Your task to perform on an android device: Empty the shopping cart on bestbuy.com. Search for alienware area 51 on bestbuy.com, select the first entry, and add it to the cart. Image 0: 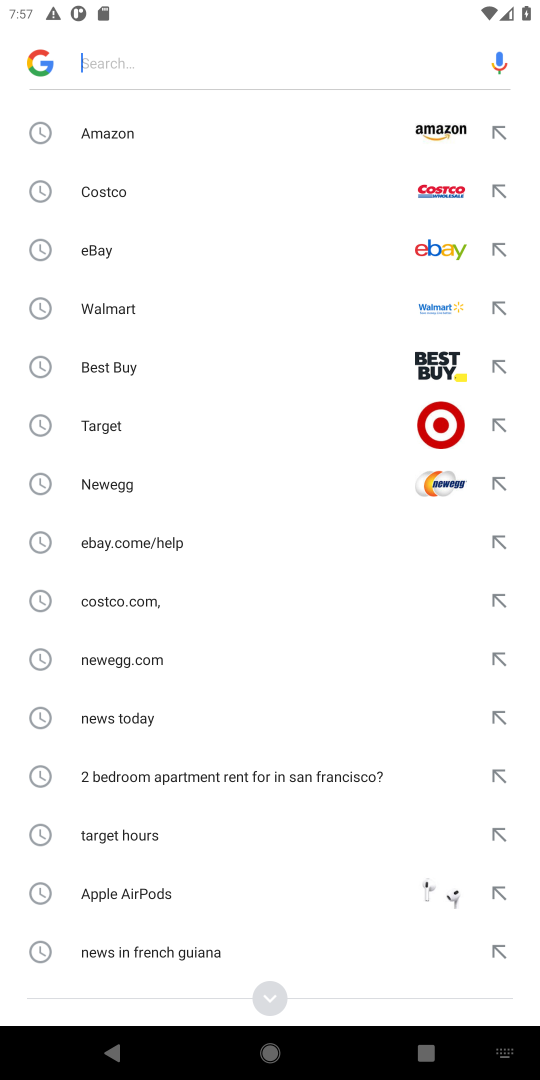
Step 0: click (119, 73)
Your task to perform on an android device: Empty the shopping cart on bestbuy.com. Search for alienware area 51 on bestbuy.com, select the first entry, and add it to the cart. Image 1: 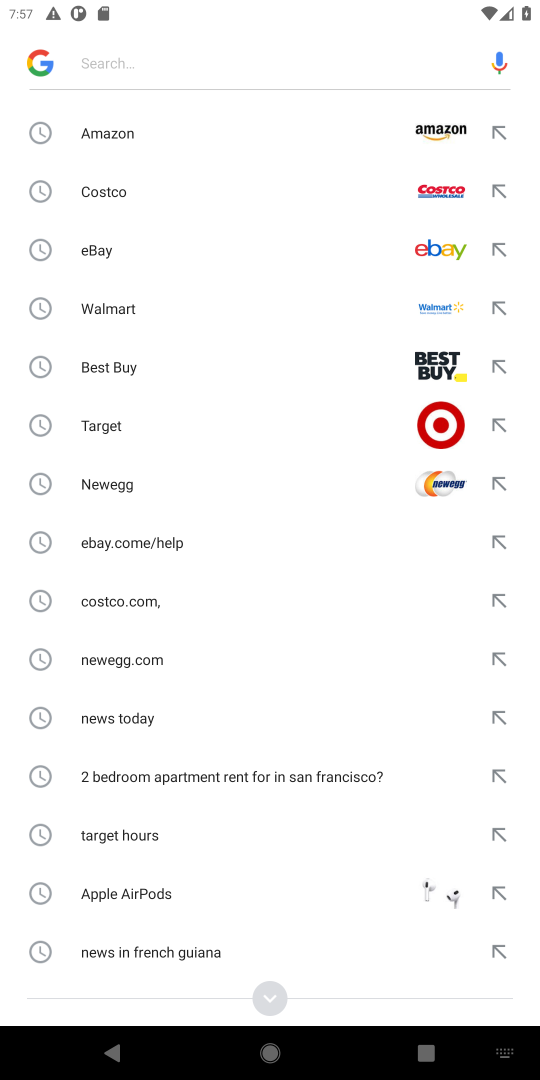
Step 1: type "bestbuy.com"
Your task to perform on an android device: Empty the shopping cart on bestbuy.com. Search for alienware area 51 on bestbuy.com, select the first entry, and add it to the cart. Image 2: 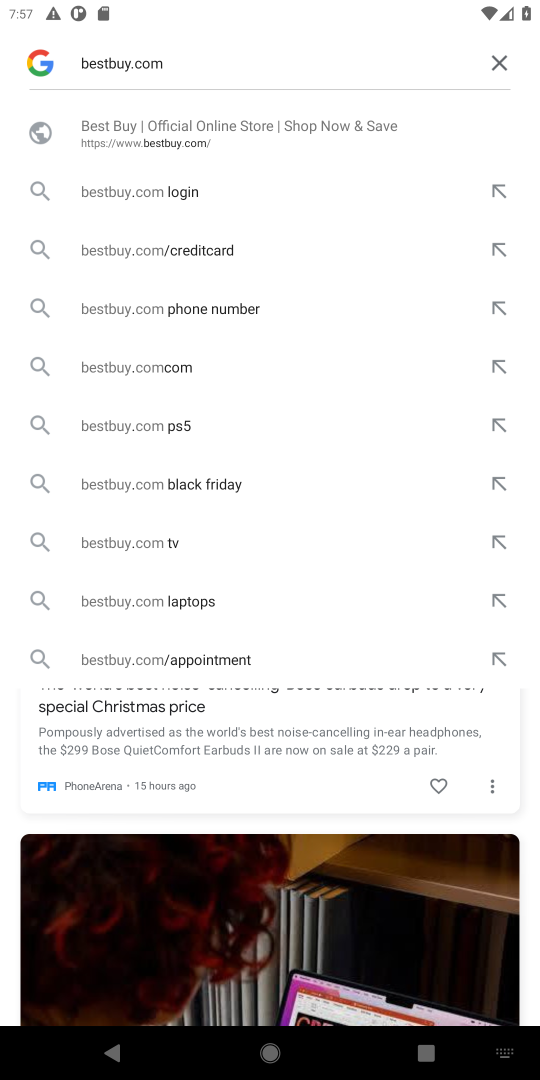
Step 2: click (113, 137)
Your task to perform on an android device: Empty the shopping cart on bestbuy.com. Search for alienware area 51 on bestbuy.com, select the first entry, and add it to the cart. Image 3: 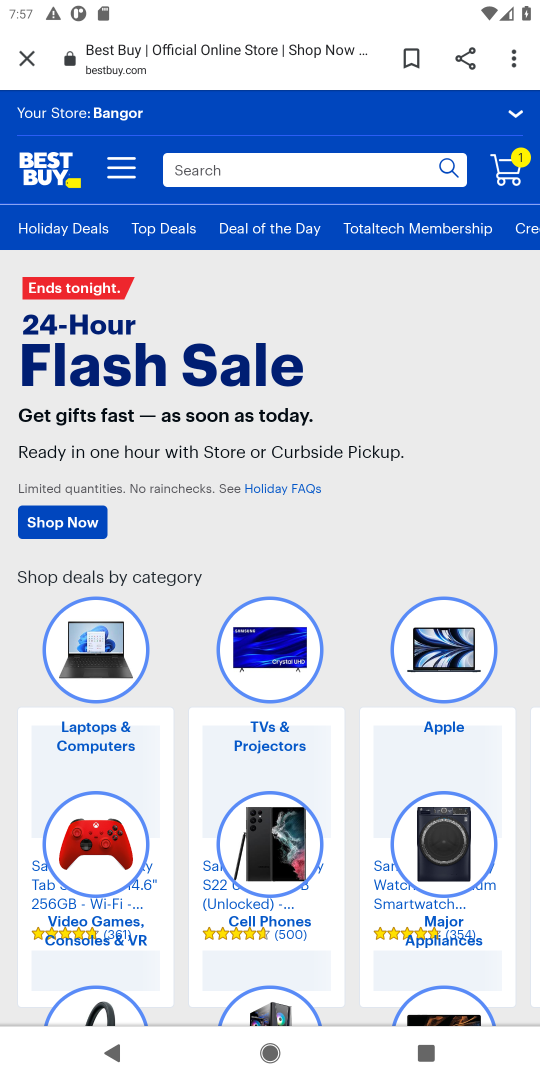
Step 3: click (511, 178)
Your task to perform on an android device: Empty the shopping cart on bestbuy.com. Search for alienware area 51 on bestbuy.com, select the first entry, and add it to the cart. Image 4: 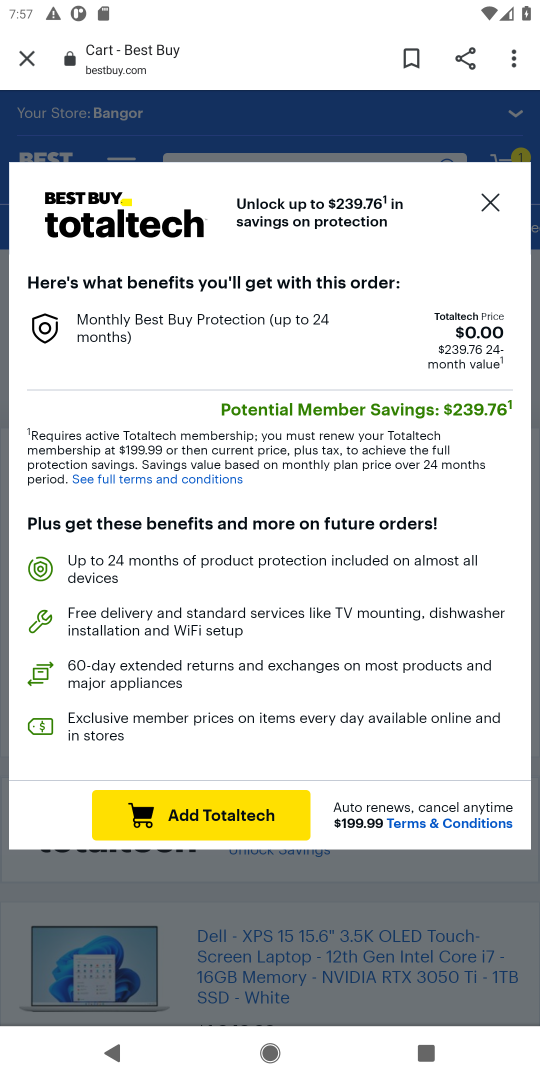
Step 4: click (495, 201)
Your task to perform on an android device: Empty the shopping cart on bestbuy.com. Search for alienware area 51 on bestbuy.com, select the first entry, and add it to the cart. Image 5: 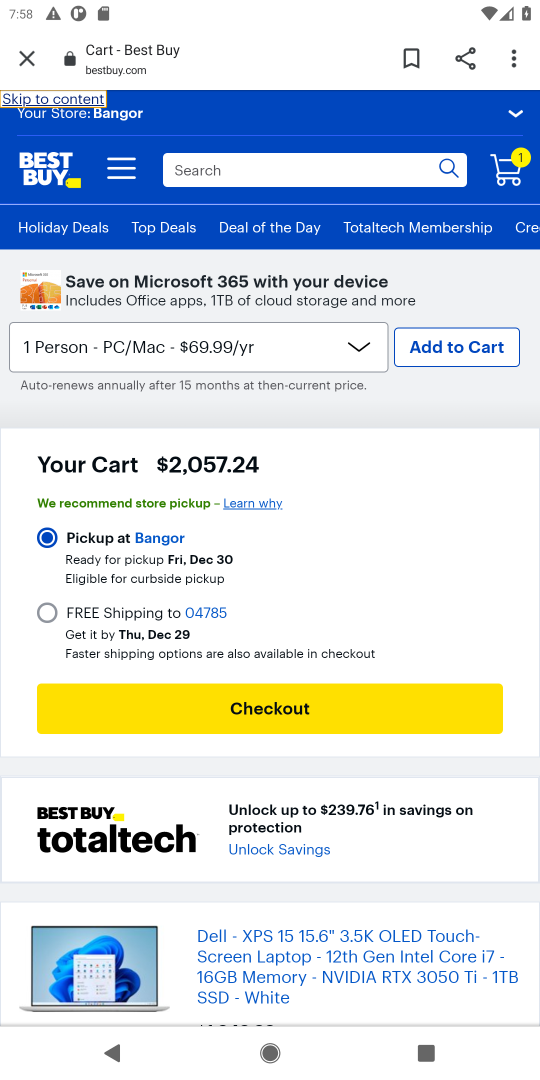
Step 5: drag from (341, 872) to (339, 491)
Your task to perform on an android device: Empty the shopping cart on bestbuy.com. Search for alienware area 51 on bestbuy.com, select the first entry, and add it to the cart. Image 6: 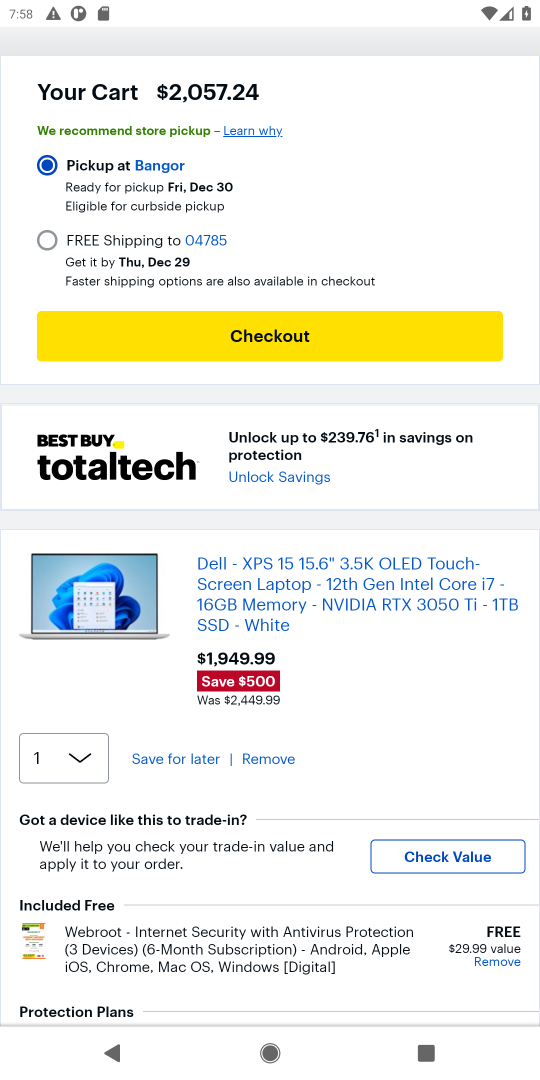
Step 6: click (261, 756)
Your task to perform on an android device: Empty the shopping cart on bestbuy.com. Search for alienware area 51 on bestbuy.com, select the first entry, and add it to the cart. Image 7: 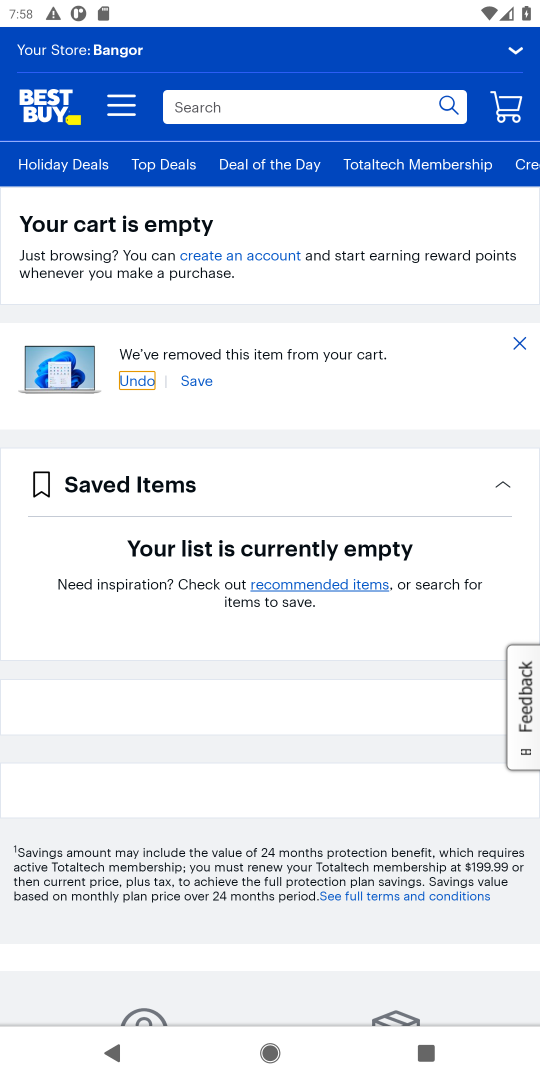
Step 7: click (233, 107)
Your task to perform on an android device: Empty the shopping cart on bestbuy.com. Search for alienware area 51 on bestbuy.com, select the first entry, and add it to the cart. Image 8: 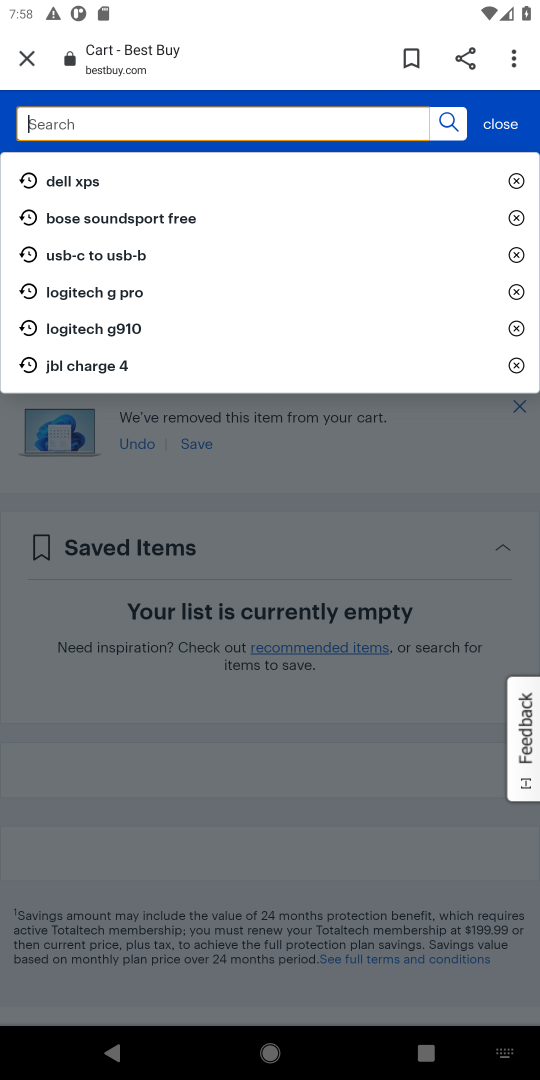
Step 8: type "alienware area 51"
Your task to perform on an android device: Empty the shopping cart on bestbuy.com. Search for alienware area 51 on bestbuy.com, select the first entry, and add it to the cart. Image 9: 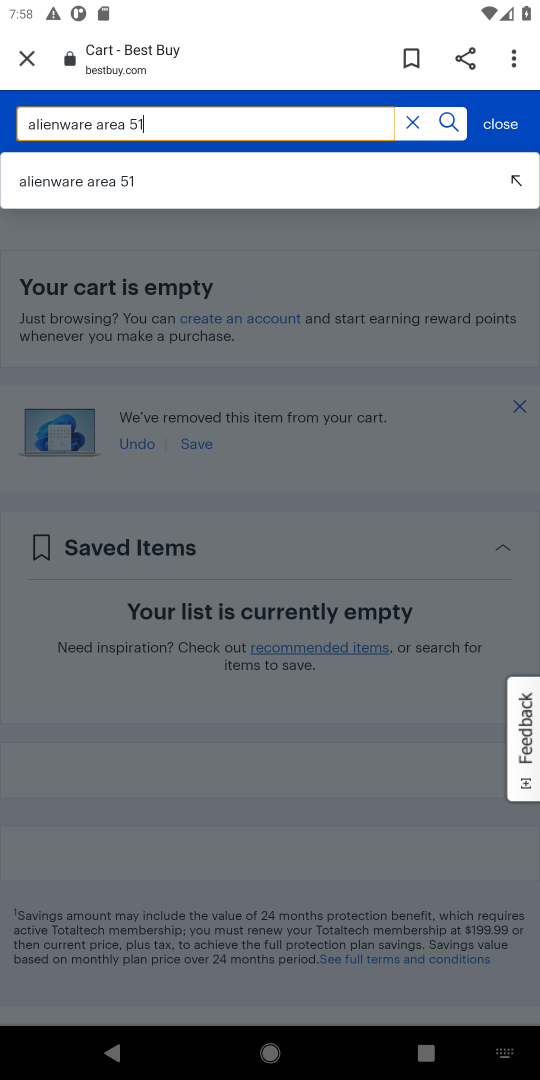
Step 9: click (42, 189)
Your task to perform on an android device: Empty the shopping cart on bestbuy.com. Search for alienware area 51 on bestbuy.com, select the first entry, and add it to the cart. Image 10: 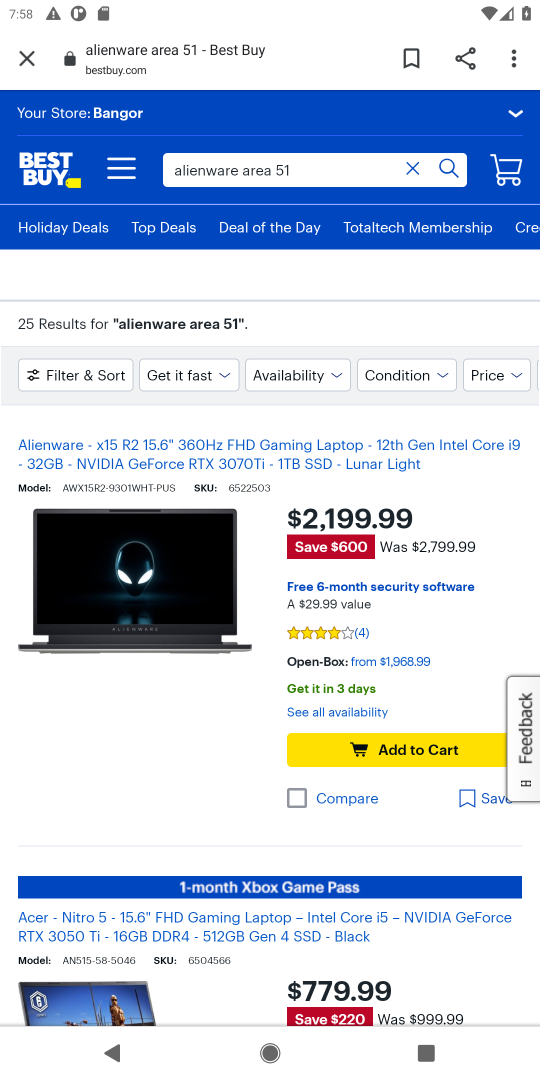
Step 10: task complete